Your task to perform on an android device: What's the news in Malaysia? Image 0: 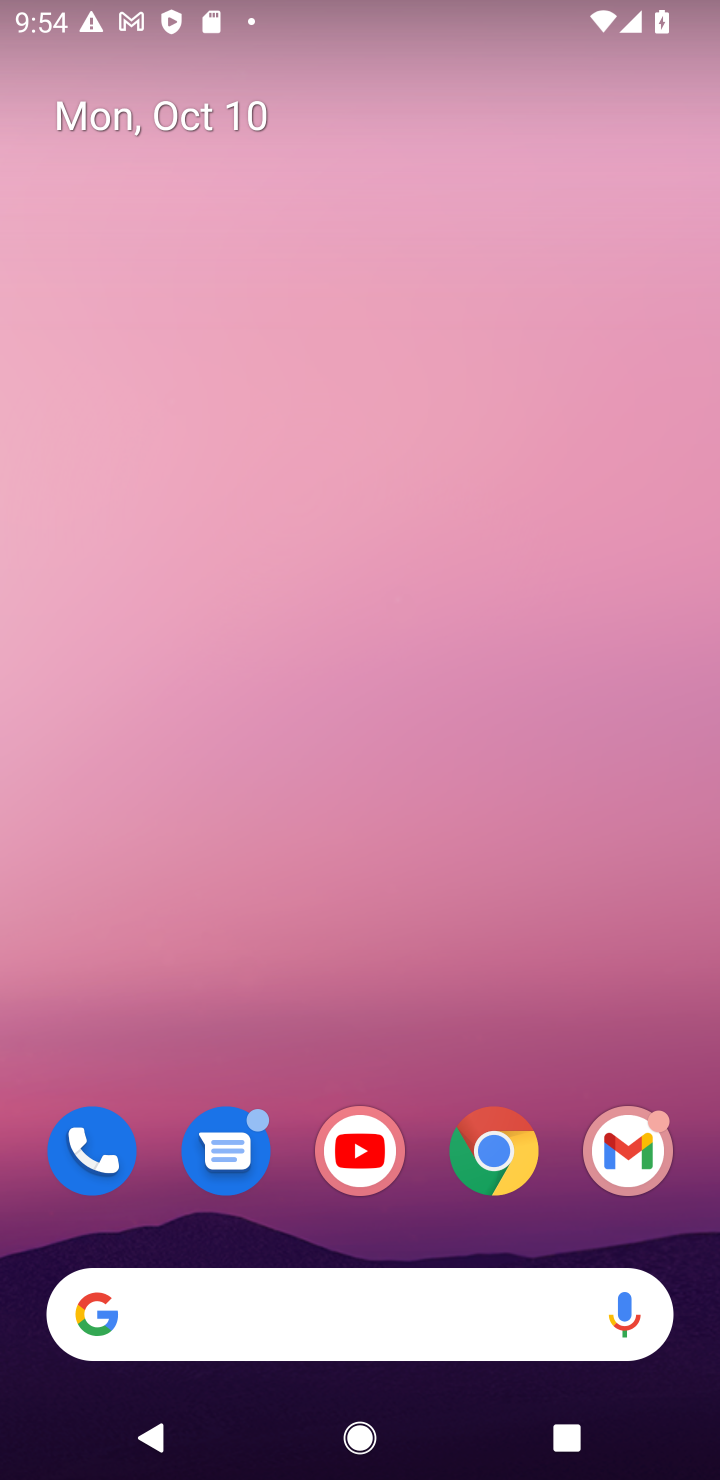
Step 0: click (453, 1143)
Your task to perform on an android device: What's the news in Malaysia? Image 1: 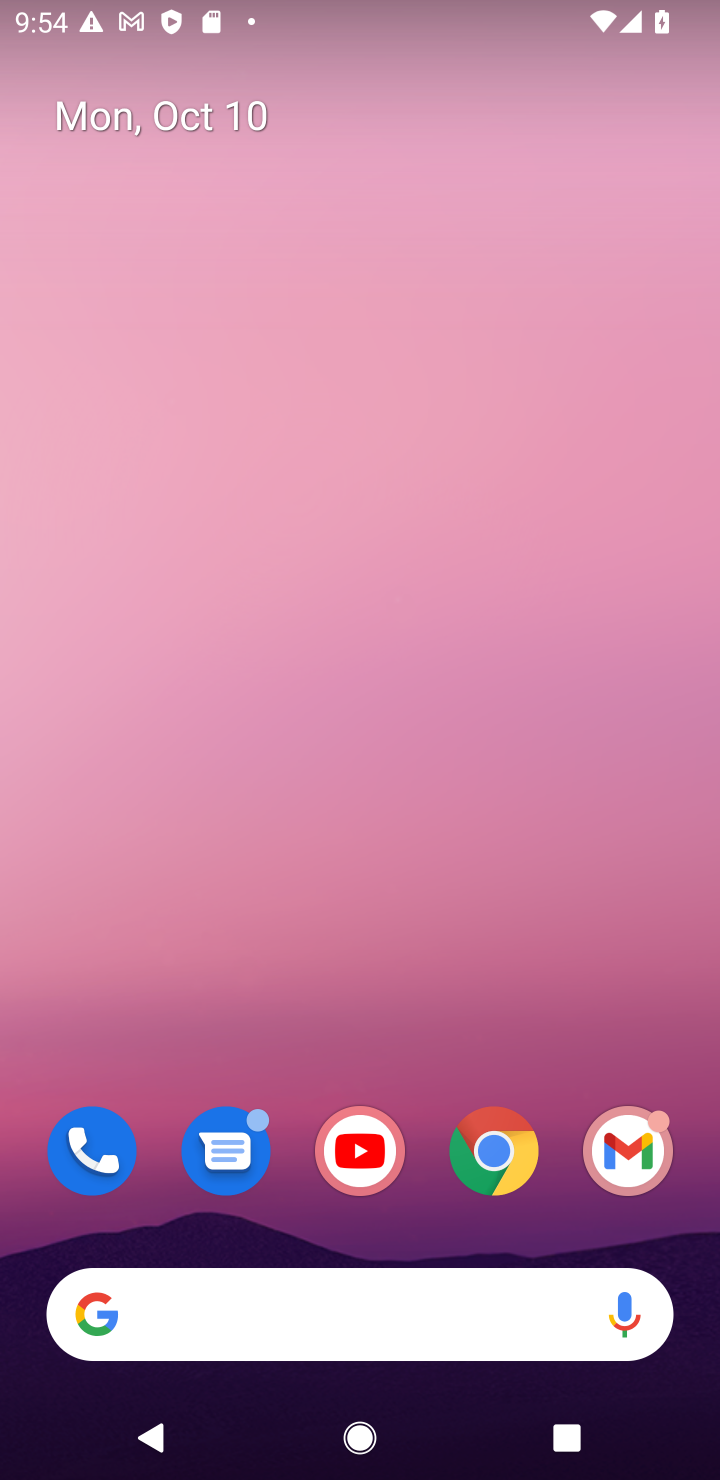
Step 1: click (444, 1151)
Your task to perform on an android device: What's the news in Malaysia? Image 2: 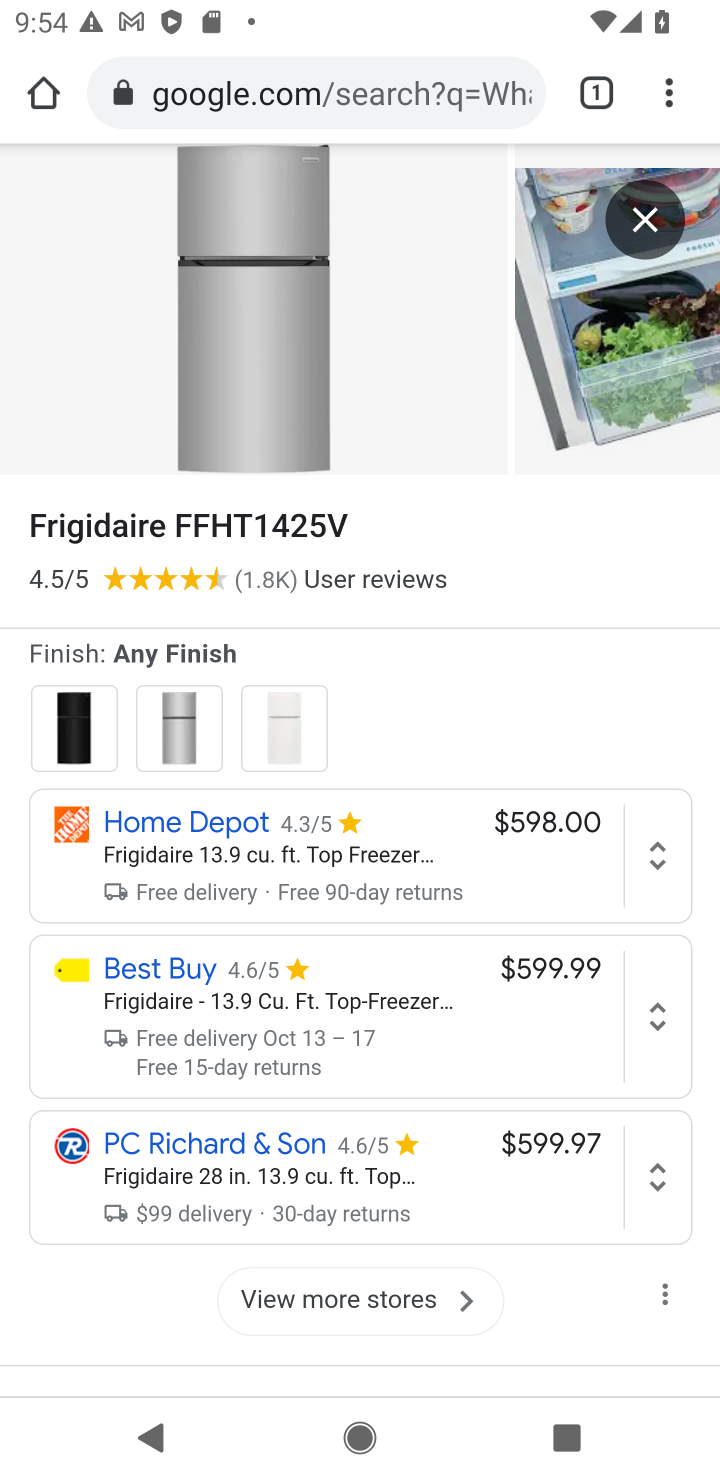
Step 2: click (352, 77)
Your task to perform on an android device: What's the news in Malaysia? Image 3: 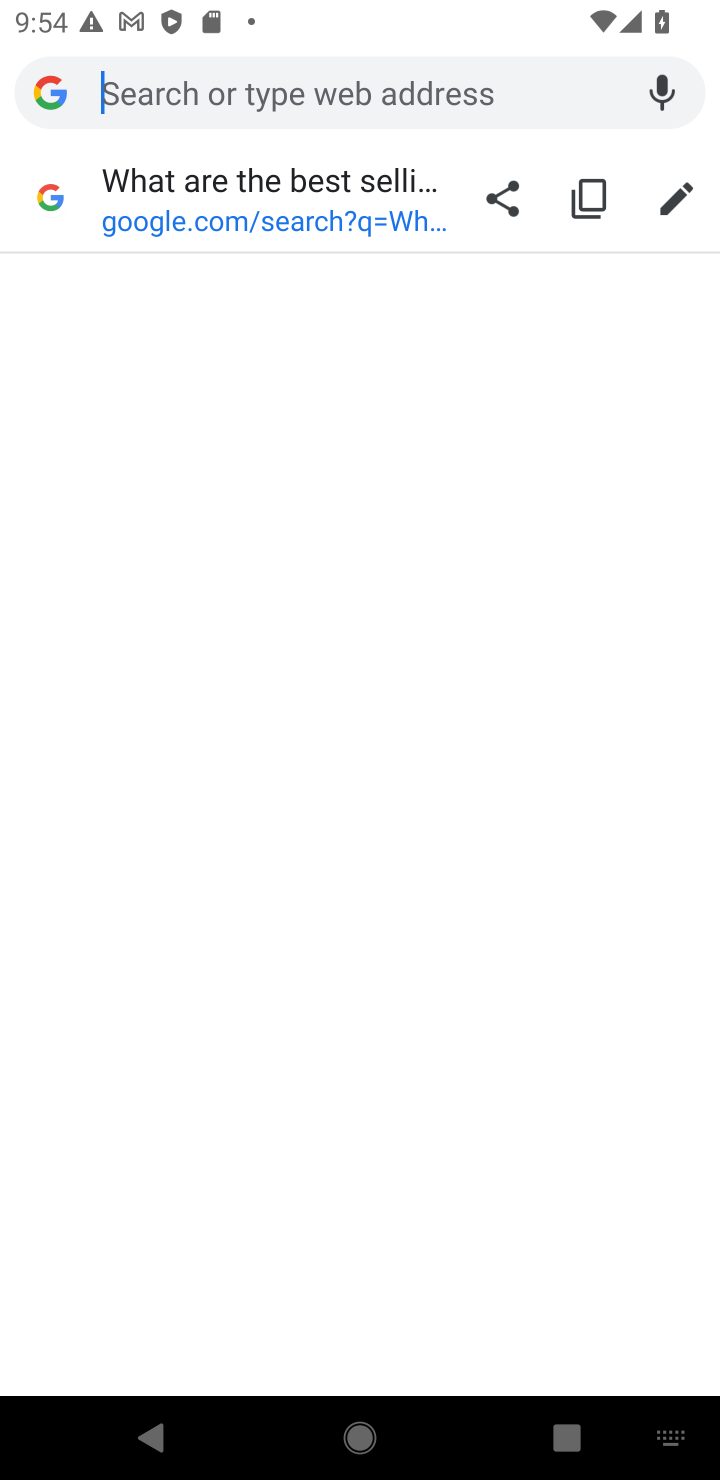
Step 3: type "What's the news in Malaysia?"
Your task to perform on an android device: What's the news in Malaysia? Image 4: 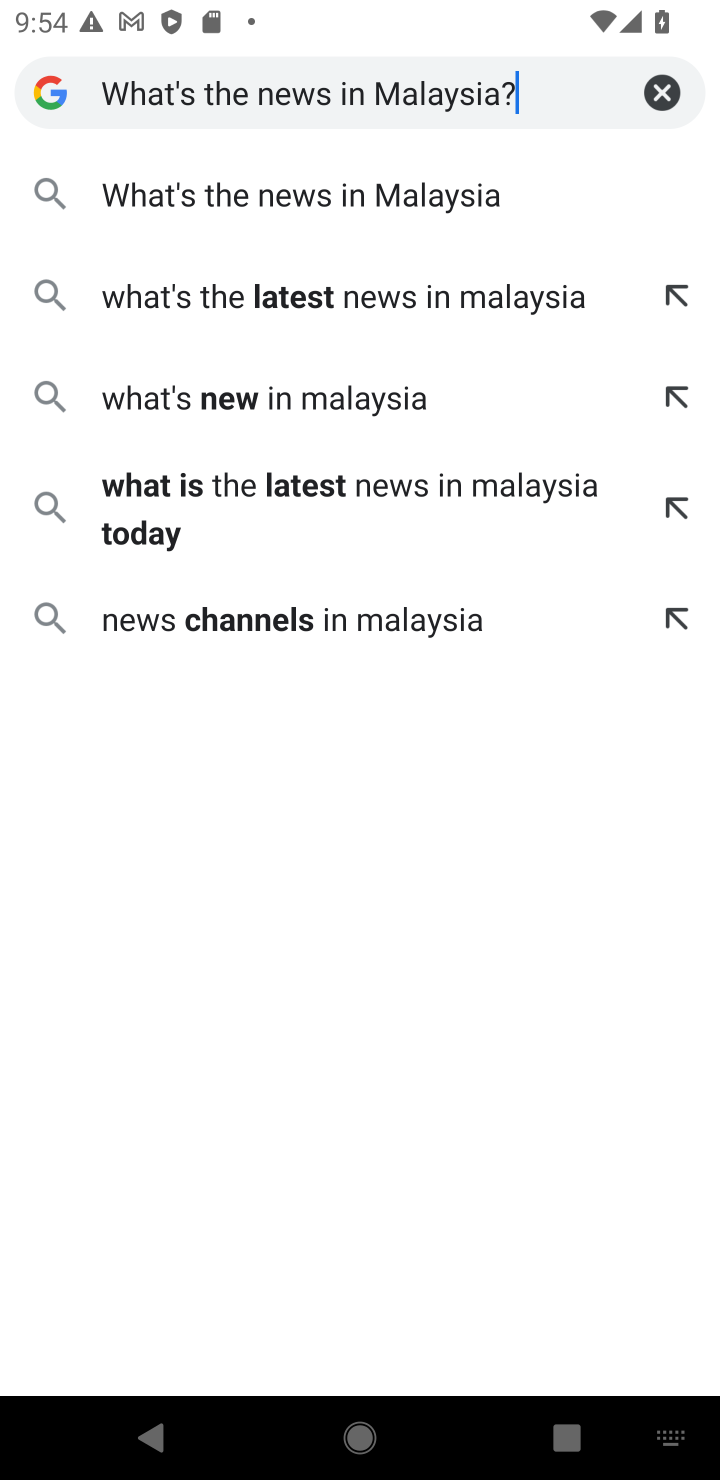
Step 4: type "What's the news in Malaysia?"
Your task to perform on an android device: What's the news in Malaysia? Image 5: 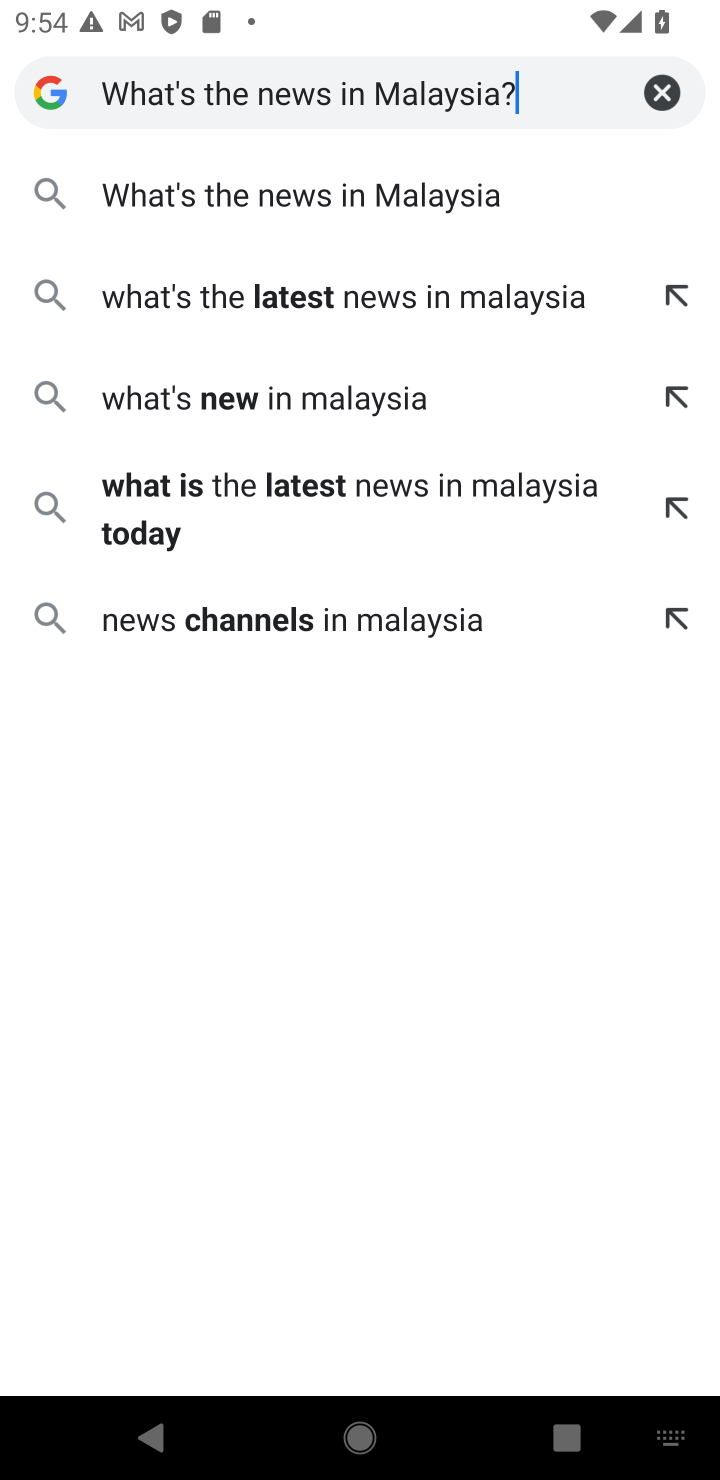
Step 5: click (226, 219)
Your task to perform on an android device: What's the news in Malaysia? Image 6: 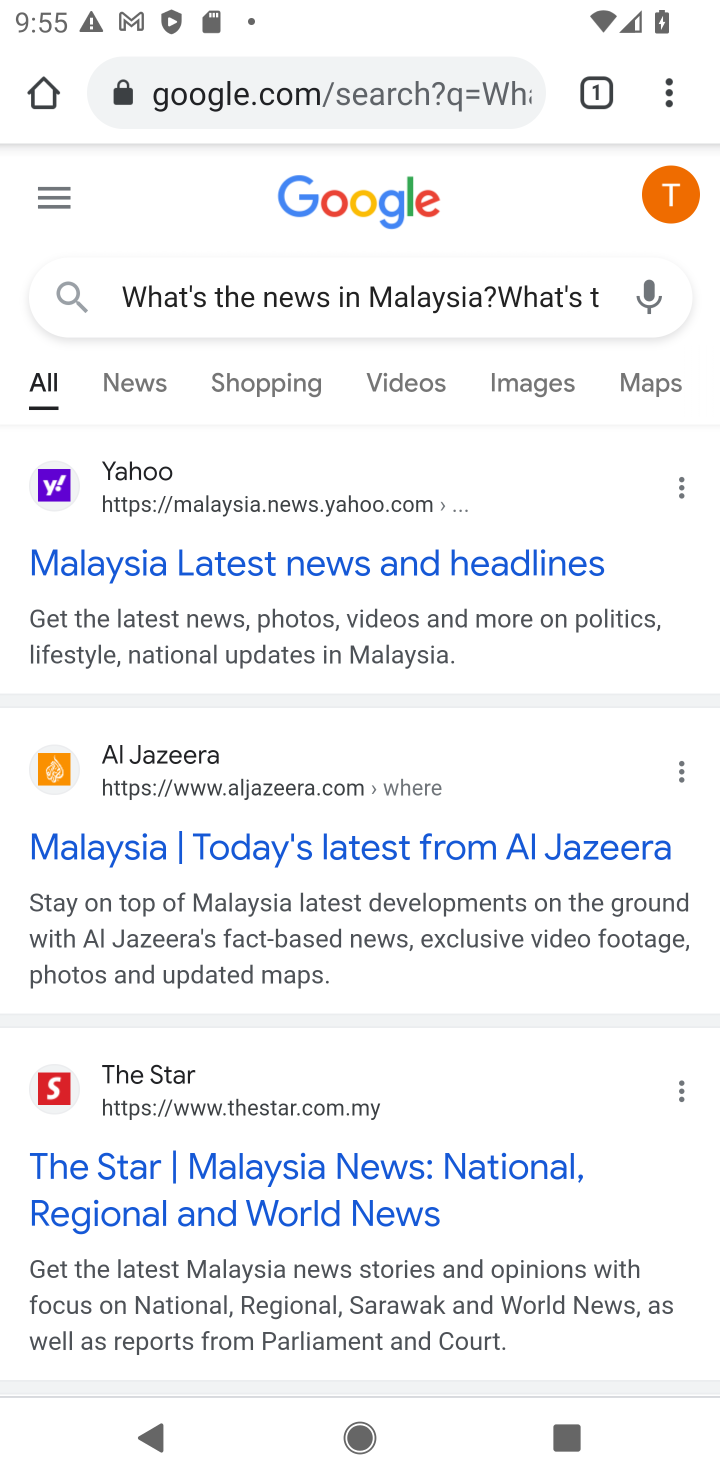
Step 6: click (113, 391)
Your task to perform on an android device: What's the news in Malaysia? Image 7: 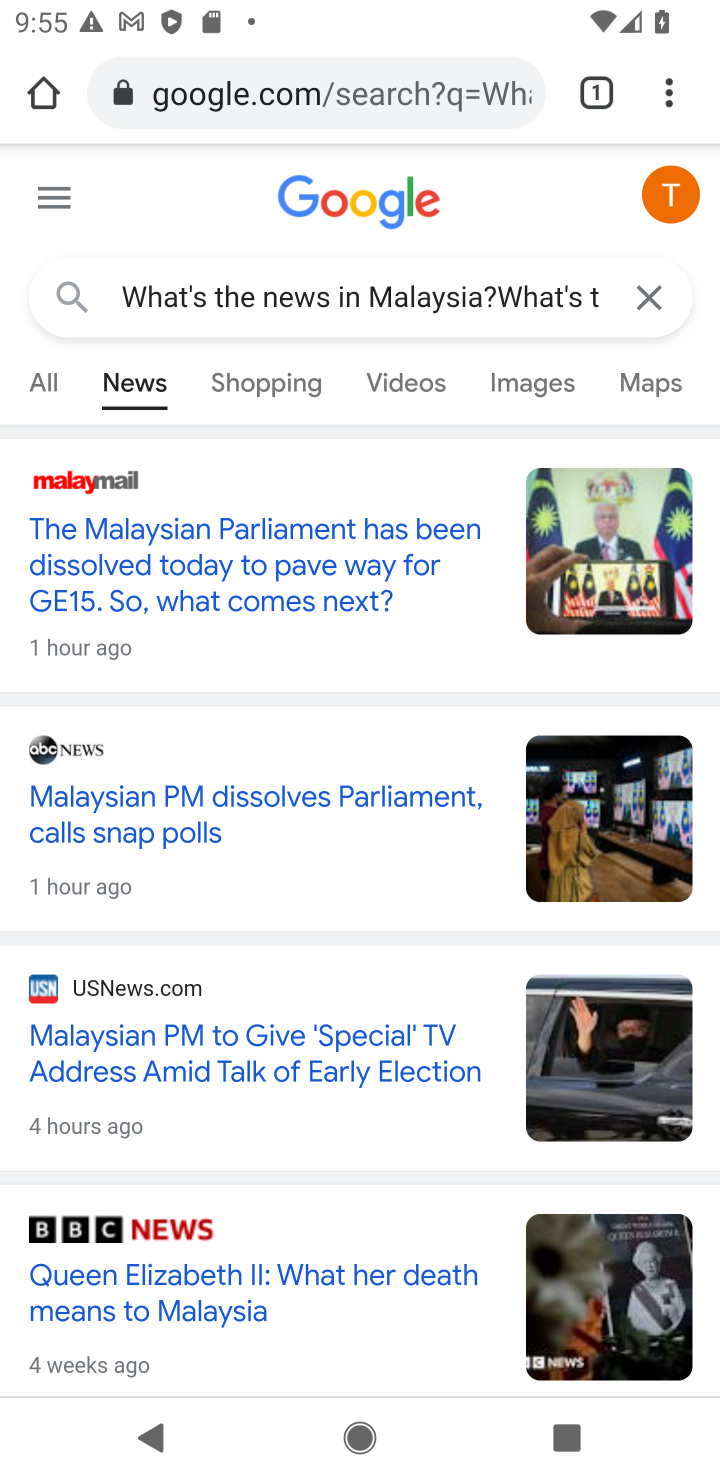
Step 7: task complete